Your task to perform on an android device: toggle improve location accuracy Image 0: 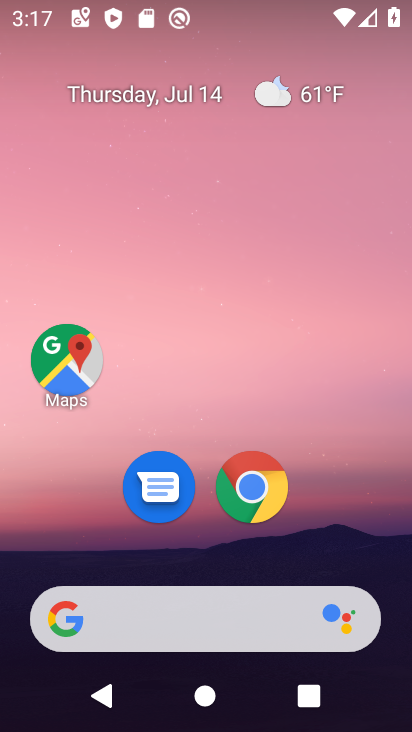
Step 0: drag from (204, 487) to (271, 47)
Your task to perform on an android device: toggle improve location accuracy Image 1: 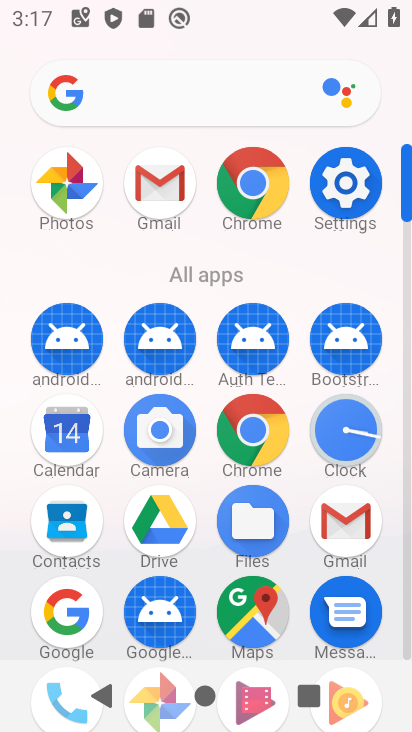
Step 1: click (339, 180)
Your task to perform on an android device: toggle improve location accuracy Image 2: 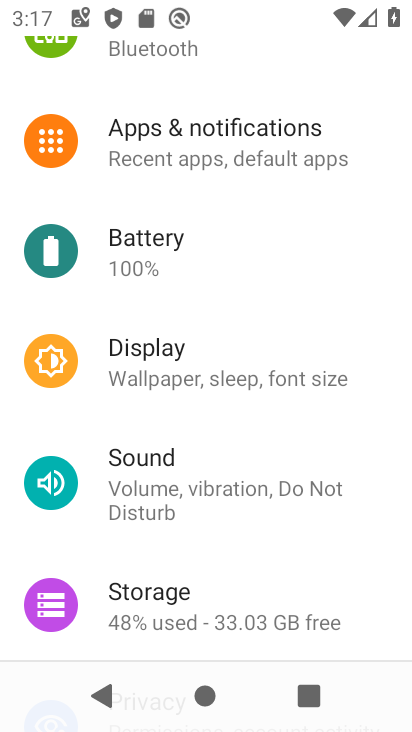
Step 2: drag from (236, 177) to (236, 674)
Your task to perform on an android device: toggle improve location accuracy Image 3: 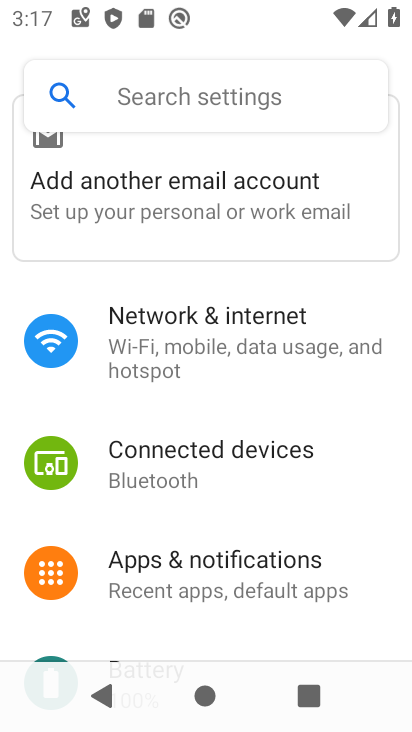
Step 3: drag from (269, 380) to (333, 6)
Your task to perform on an android device: toggle improve location accuracy Image 4: 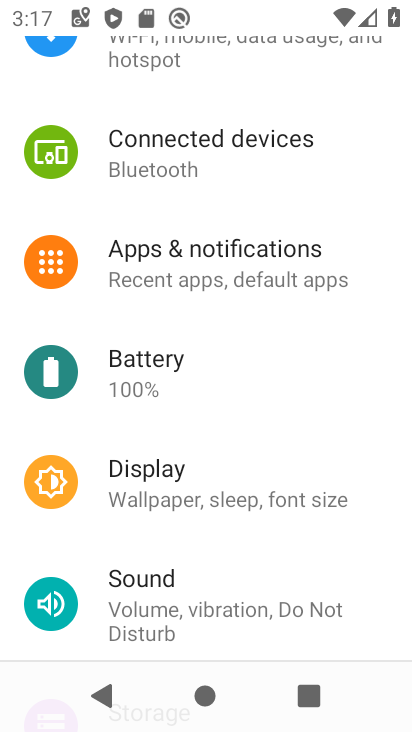
Step 4: drag from (199, 569) to (282, 25)
Your task to perform on an android device: toggle improve location accuracy Image 5: 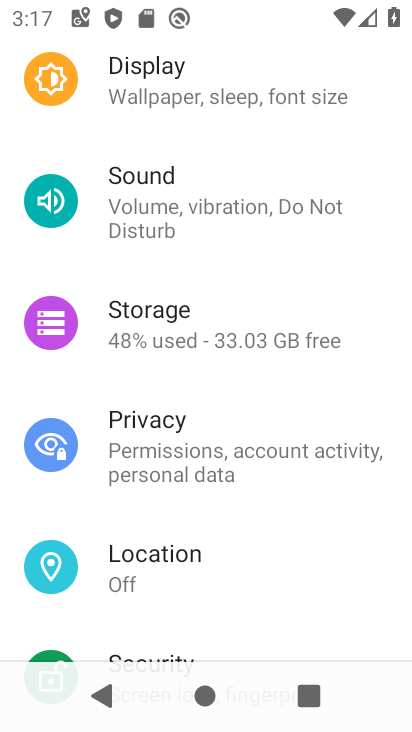
Step 5: click (132, 566)
Your task to perform on an android device: toggle improve location accuracy Image 6: 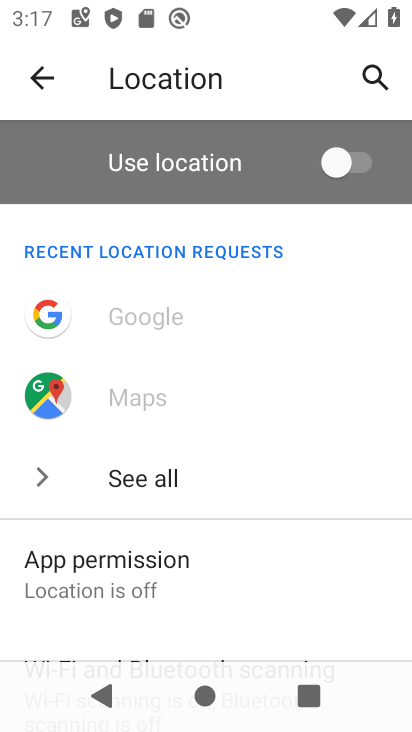
Step 6: drag from (183, 601) to (265, 133)
Your task to perform on an android device: toggle improve location accuracy Image 7: 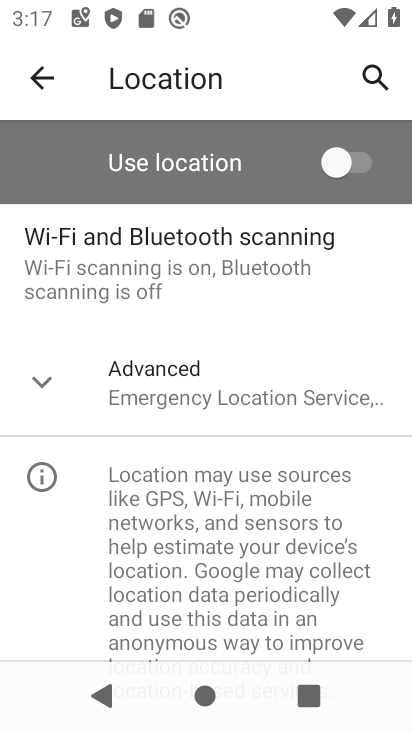
Step 7: click (148, 379)
Your task to perform on an android device: toggle improve location accuracy Image 8: 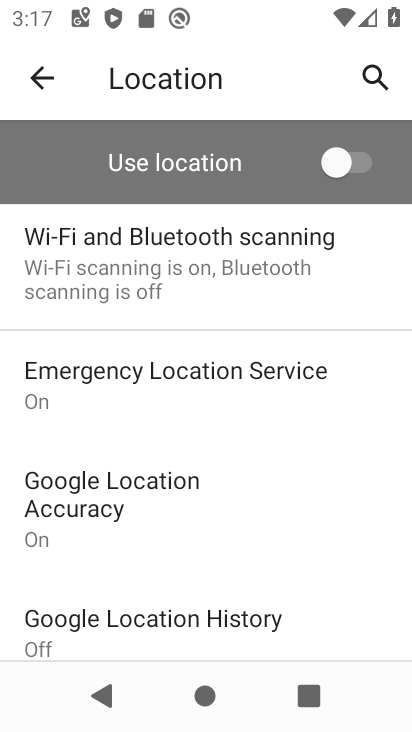
Step 8: click (133, 497)
Your task to perform on an android device: toggle improve location accuracy Image 9: 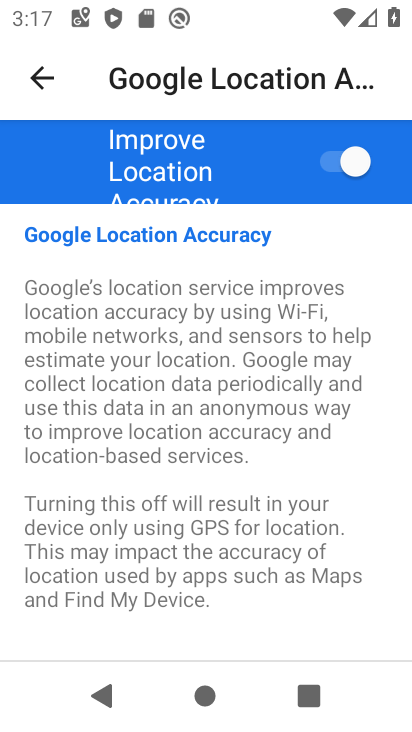
Step 9: click (343, 169)
Your task to perform on an android device: toggle improve location accuracy Image 10: 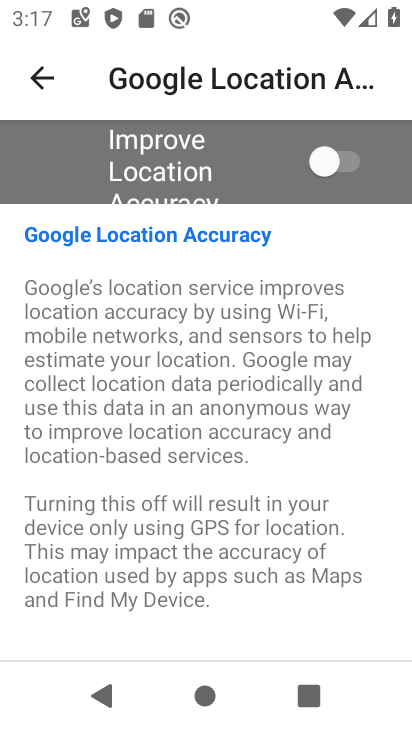
Step 10: task complete